Your task to perform on an android device: What's the weather today? Image 0: 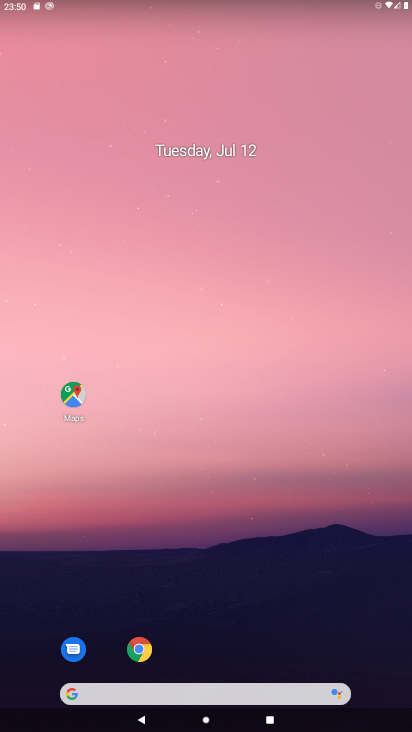
Step 0: drag from (2, 257) to (400, 260)
Your task to perform on an android device: What's the weather today? Image 1: 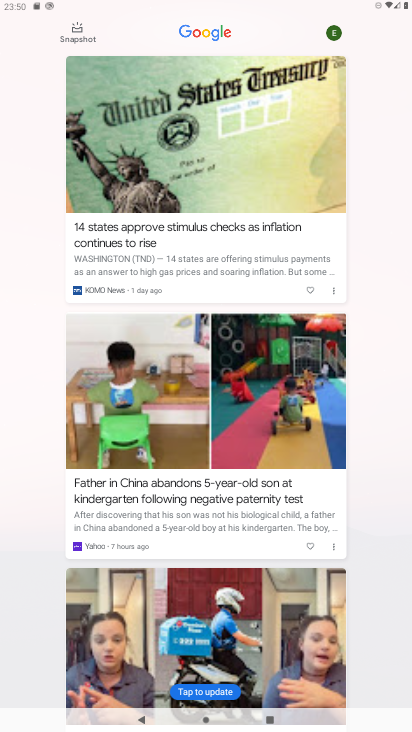
Step 1: task complete